Your task to perform on an android device: change text size in settings app Image 0: 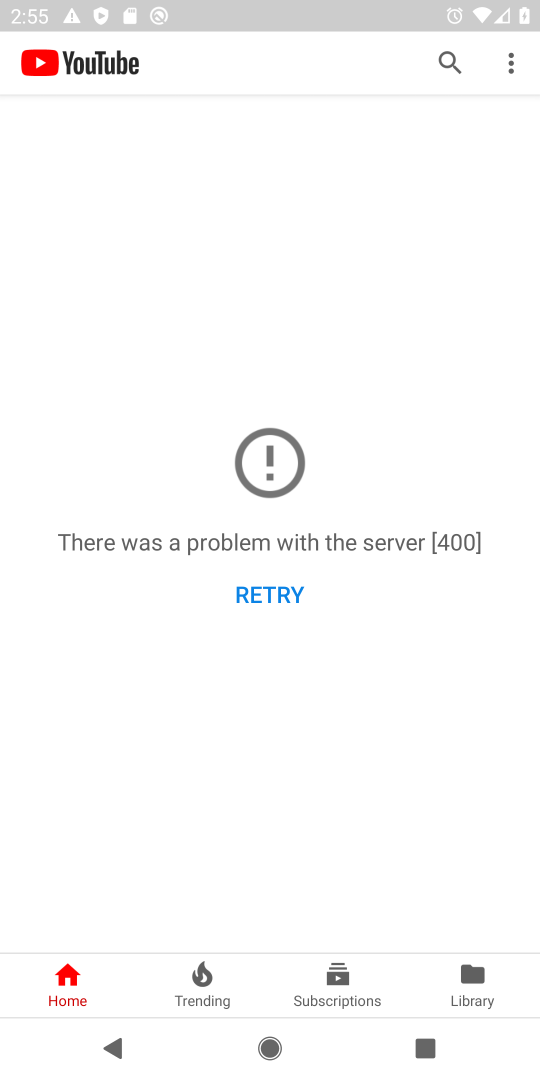
Step 0: press home button
Your task to perform on an android device: change text size in settings app Image 1: 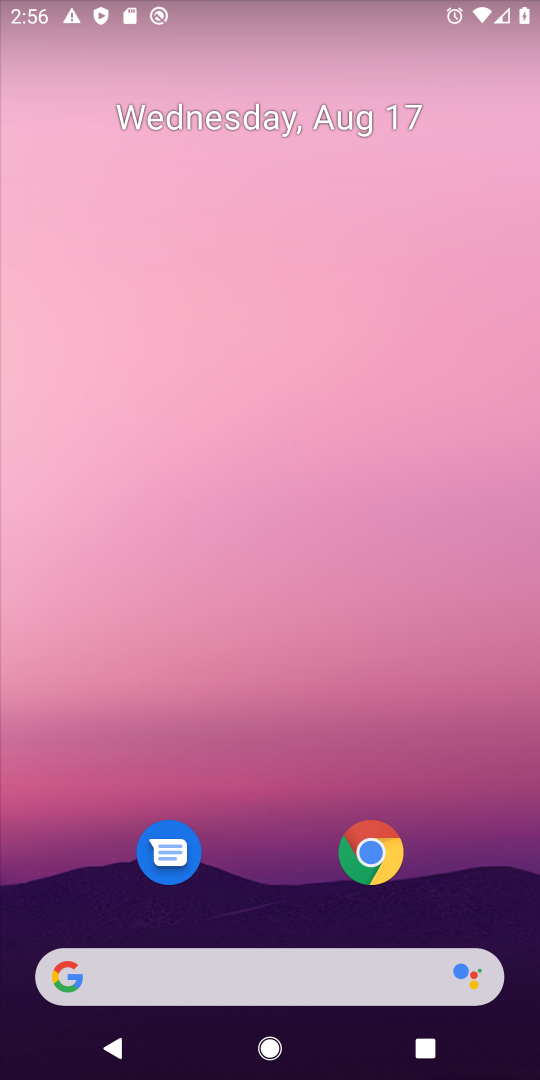
Step 1: drag from (327, 503) to (362, 156)
Your task to perform on an android device: change text size in settings app Image 2: 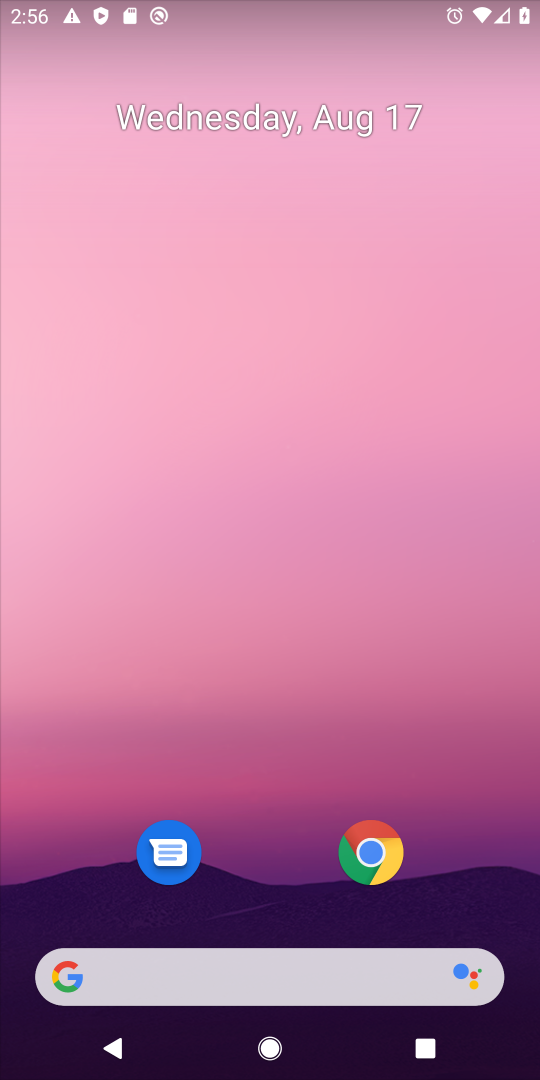
Step 2: drag from (283, 826) to (532, 2)
Your task to perform on an android device: change text size in settings app Image 3: 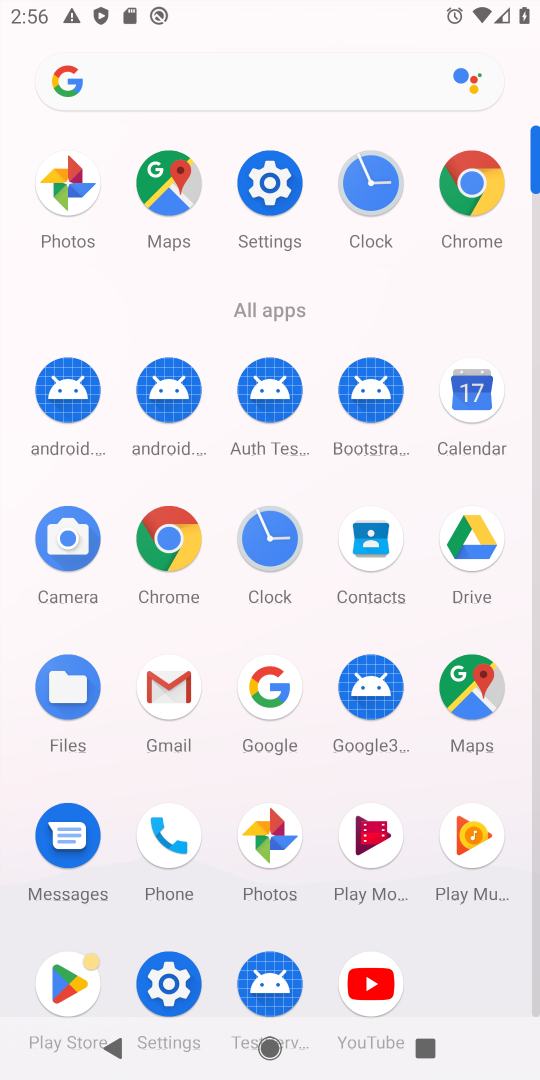
Step 3: click (178, 969)
Your task to perform on an android device: change text size in settings app Image 4: 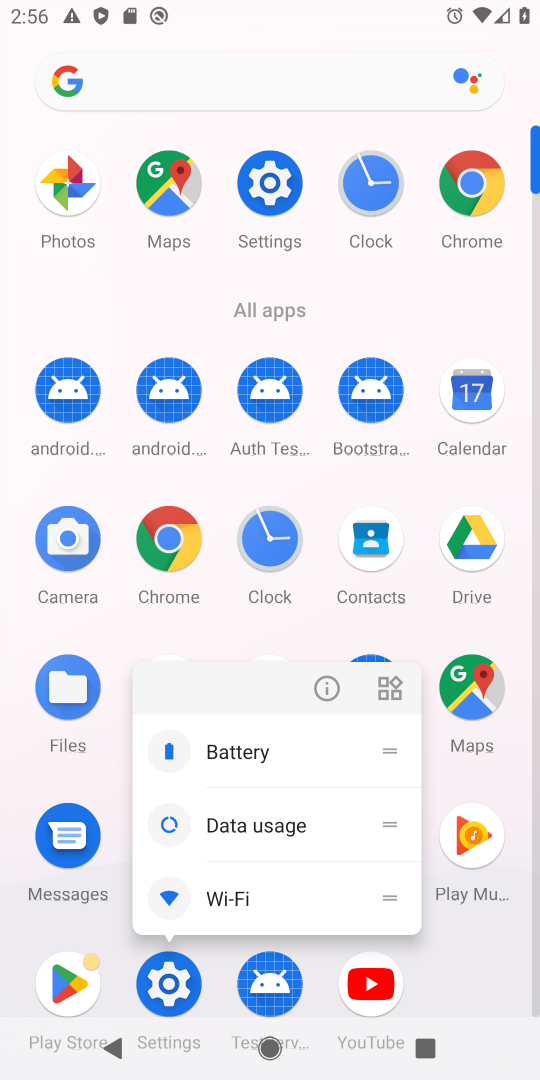
Step 4: click (178, 982)
Your task to perform on an android device: change text size in settings app Image 5: 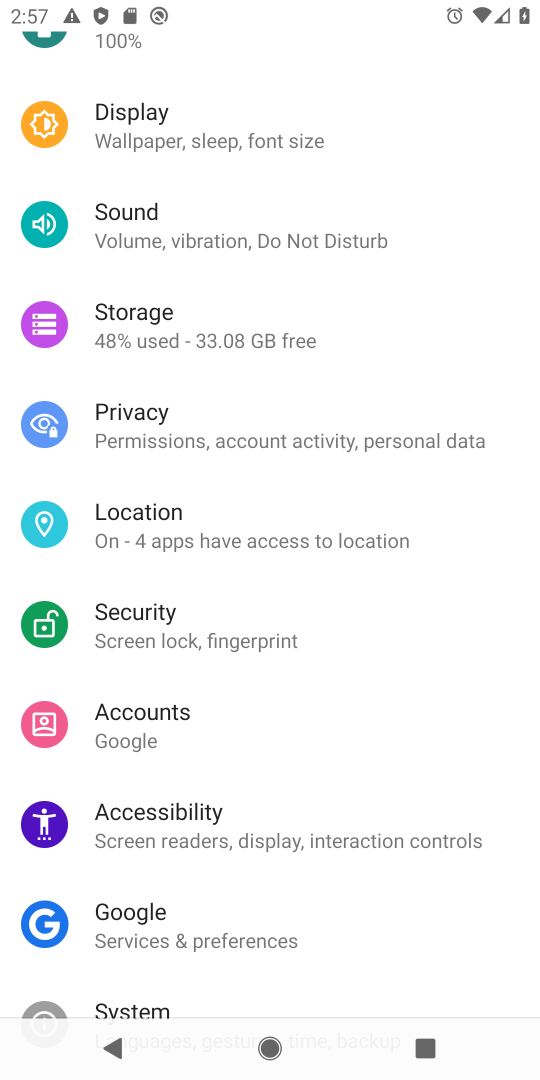
Step 5: click (192, 124)
Your task to perform on an android device: change text size in settings app Image 6: 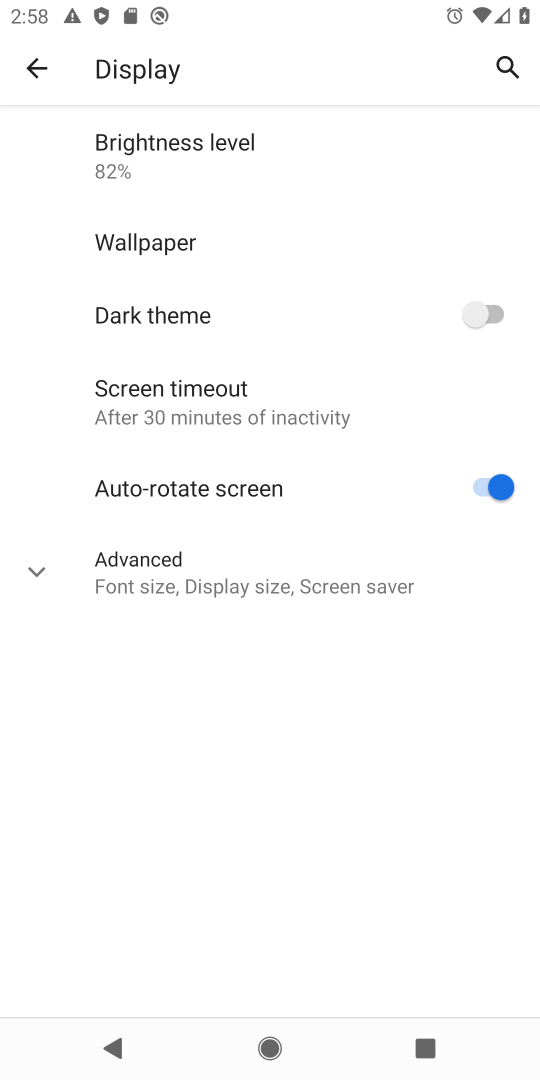
Step 6: click (171, 555)
Your task to perform on an android device: change text size in settings app Image 7: 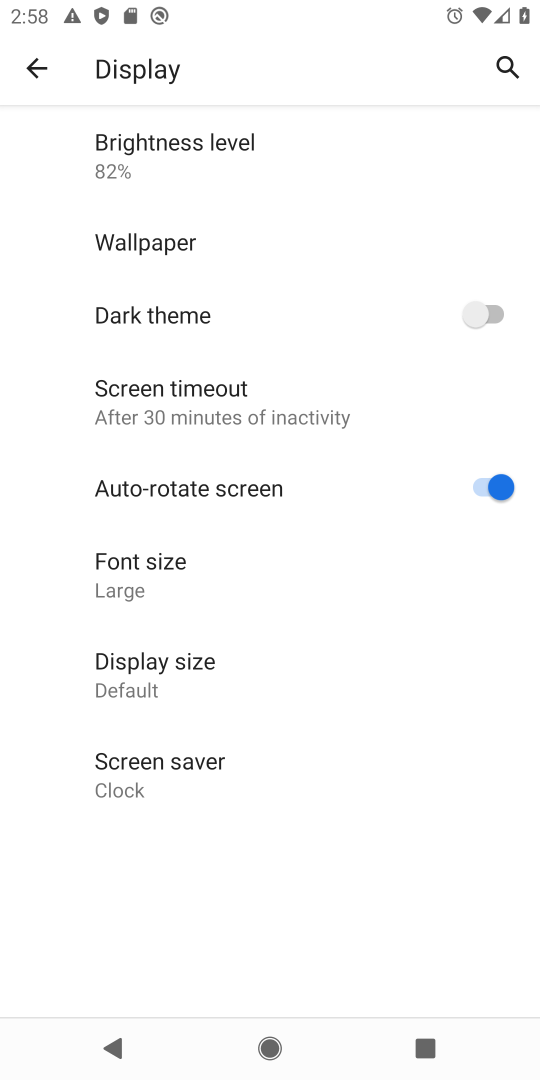
Step 7: click (169, 587)
Your task to perform on an android device: change text size in settings app Image 8: 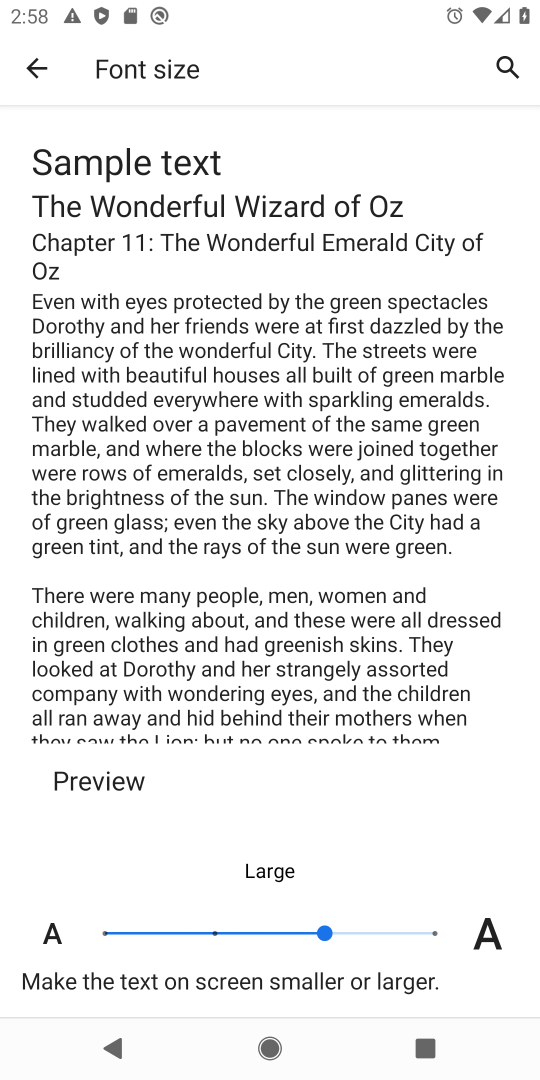
Step 8: click (210, 928)
Your task to perform on an android device: change text size in settings app Image 9: 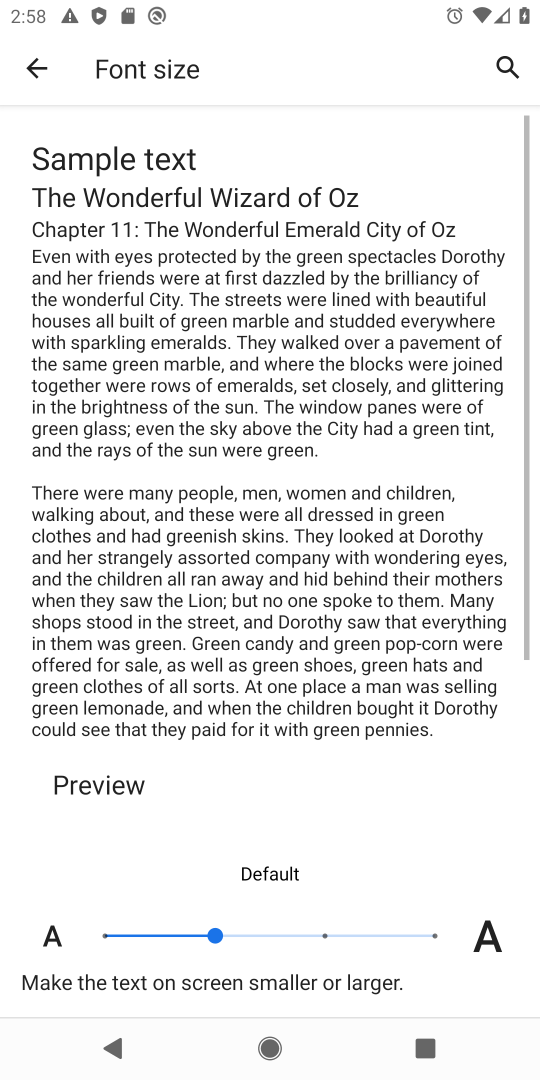
Step 9: task complete